Your task to perform on an android device: Open maps Image 0: 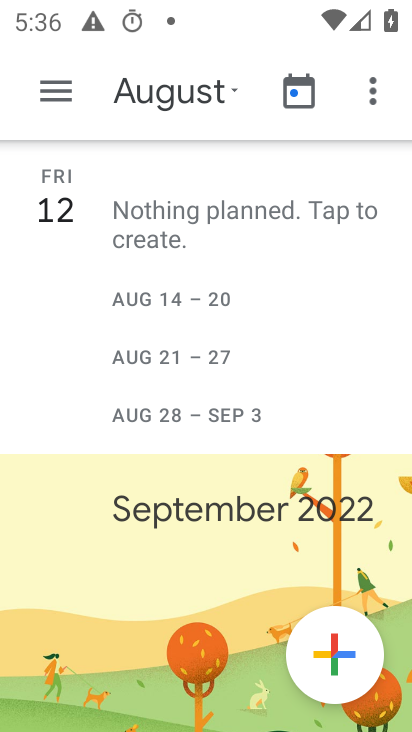
Step 0: press home button
Your task to perform on an android device: Open maps Image 1: 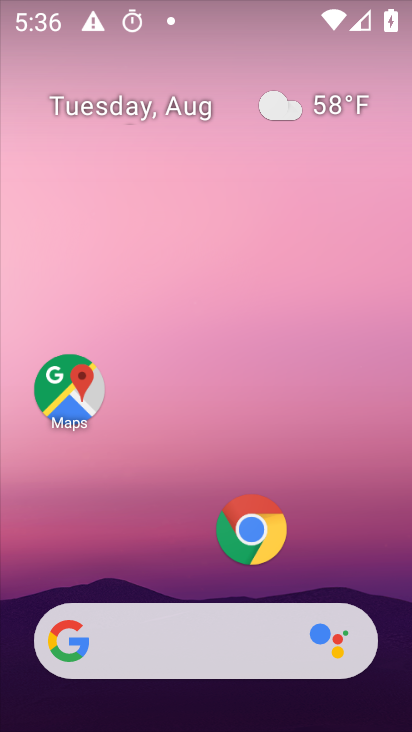
Step 1: click (68, 388)
Your task to perform on an android device: Open maps Image 2: 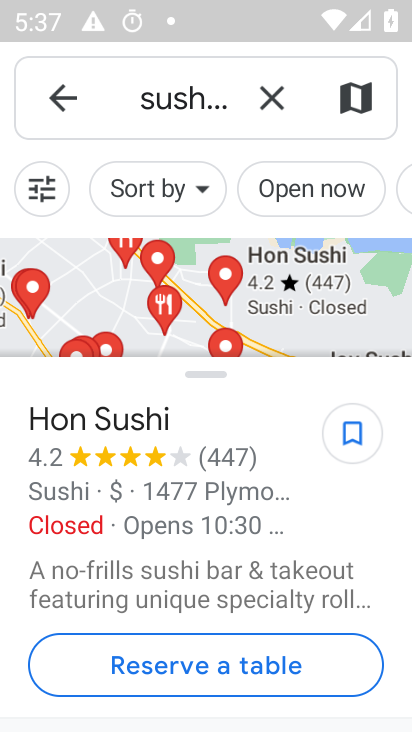
Step 2: task complete